Your task to perform on an android device: Go to sound settings Image 0: 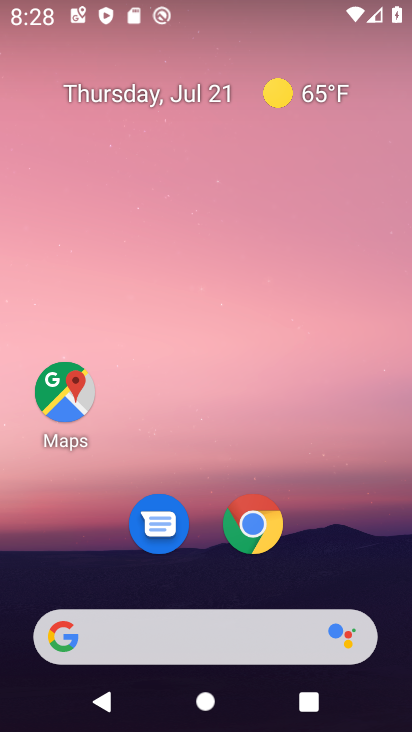
Step 0: drag from (217, 629) to (175, 141)
Your task to perform on an android device: Go to sound settings Image 1: 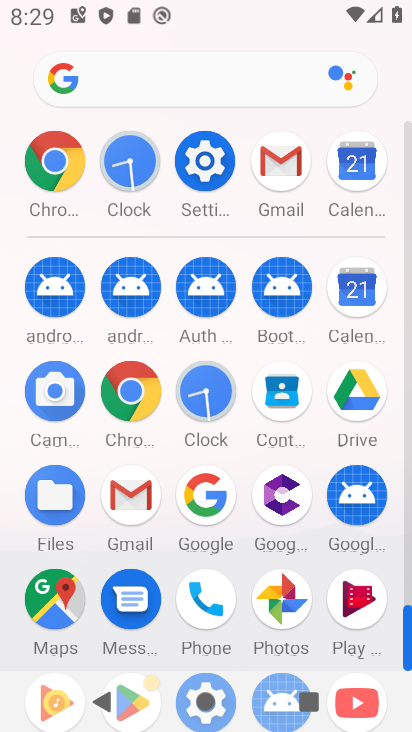
Step 1: click (222, 179)
Your task to perform on an android device: Go to sound settings Image 2: 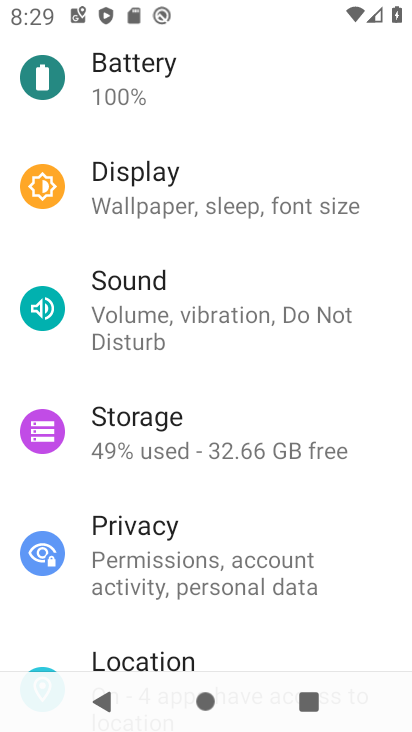
Step 2: click (117, 318)
Your task to perform on an android device: Go to sound settings Image 3: 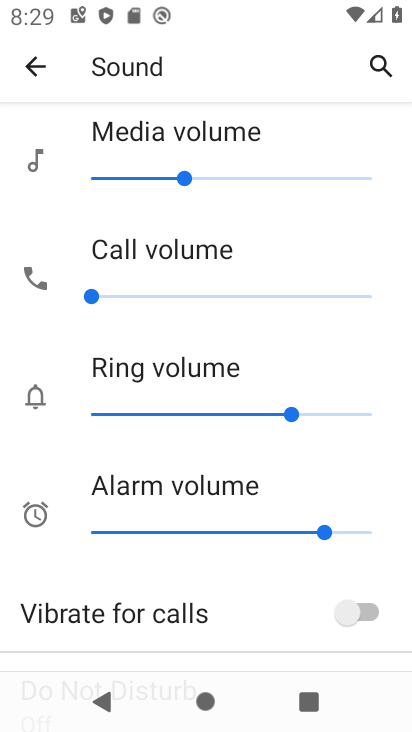
Step 3: task complete